Your task to perform on an android device: Search for sushi restaurants on Maps Image 0: 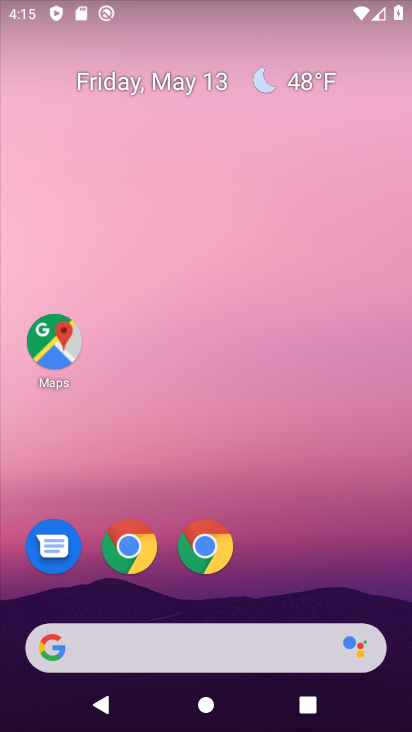
Step 0: drag from (296, 692) to (259, 281)
Your task to perform on an android device: Search for sushi restaurants on Maps Image 1: 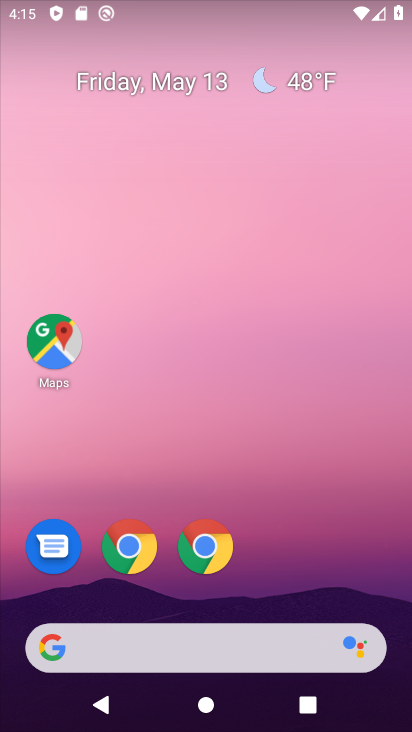
Step 1: drag from (231, 585) to (193, 145)
Your task to perform on an android device: Search for sushi restaurants on Maps Image 2: 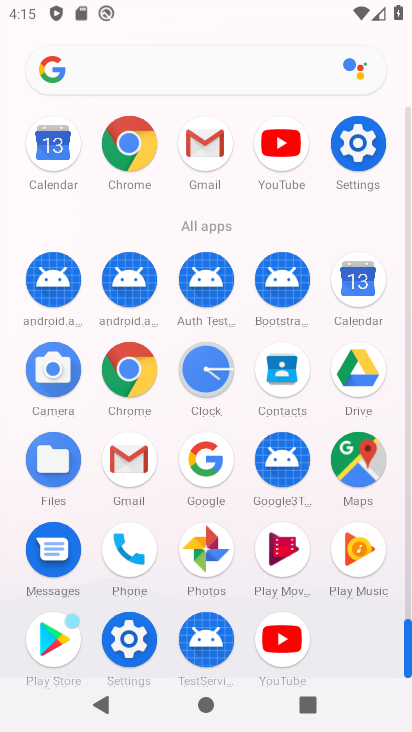
Step 2: click (359, 456)
Your task to perform on an android device: Search for sushi restaurants on Maps Image 3: 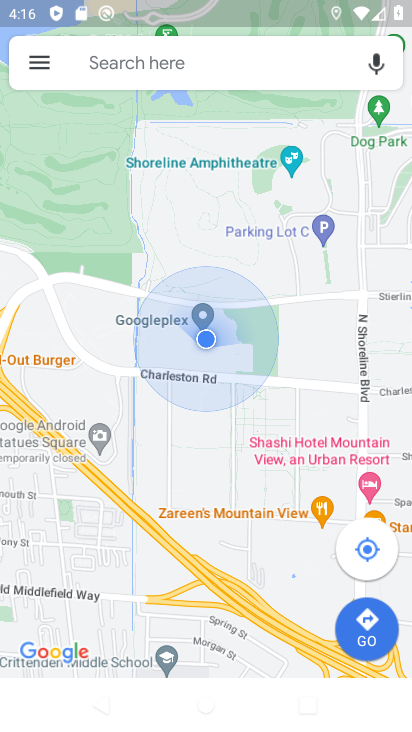
Step 3: click (128, 62)
Your task to perform on an android device: Search for sushi restaurants on Maps Image 4: 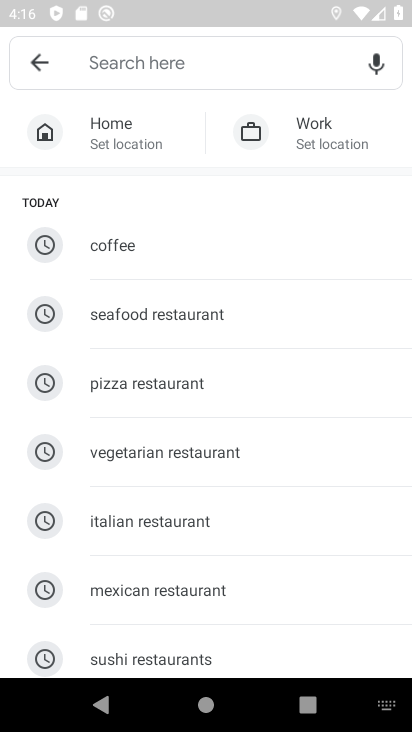
Step 4: click (162, 661)
Your task to perform on an android device: Search for sushi restaurants on Maps Image 5: 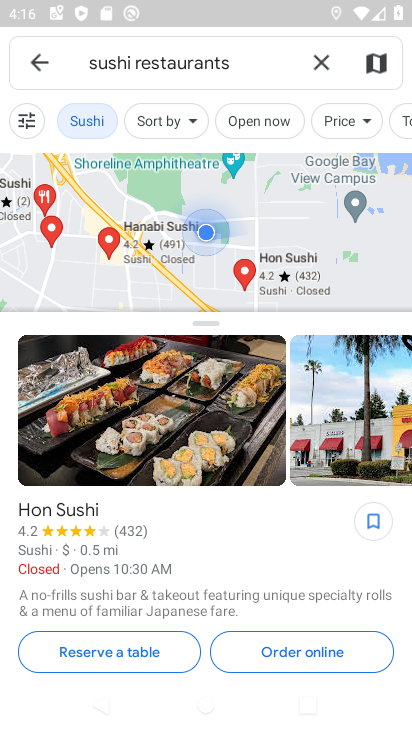
Step 5: task complete